Your task to perform on an android device: Go to eBay Image 0: 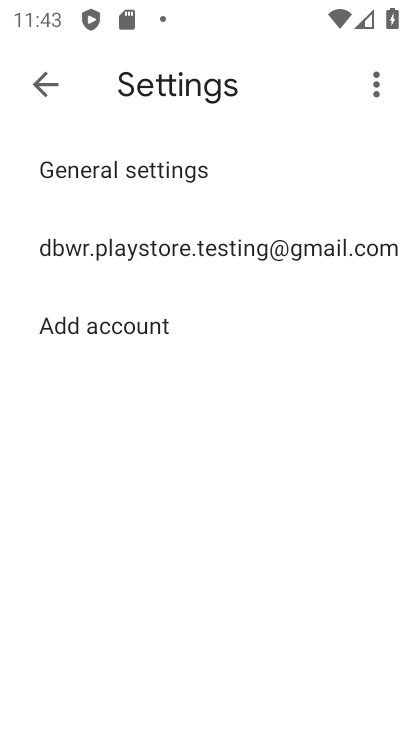
Step 0: press home button
Your task to perform on an android device: Go to eBay Image 1: 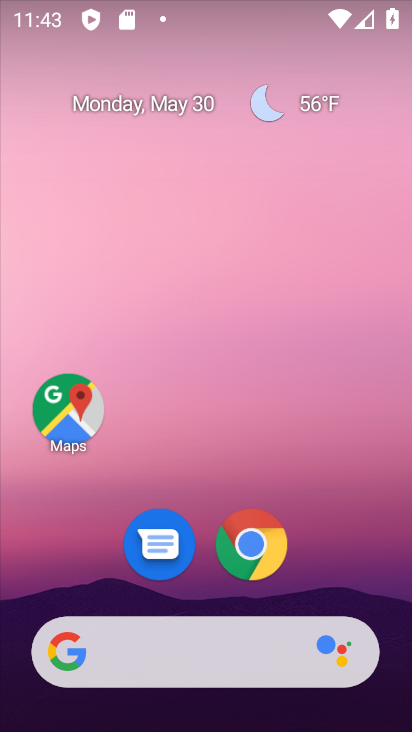
Step 1: click (181, 650)
Your task to perform on an android device: Go to eBay Image 2: 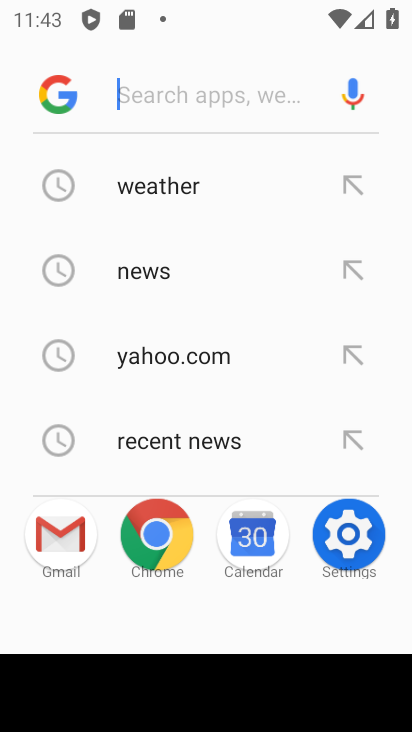
Step 2: type "ebay"
Your task to perform on an android device: Go to eBay Image 3: 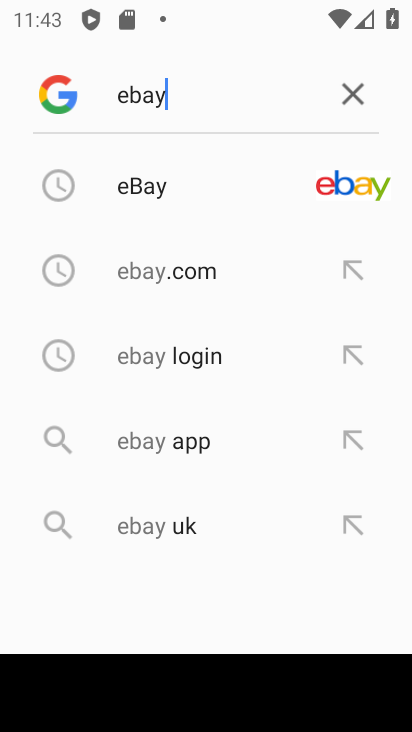
Step 3: click (195, 194)
Your task to perform on an android device: Go to eBay Image 4: 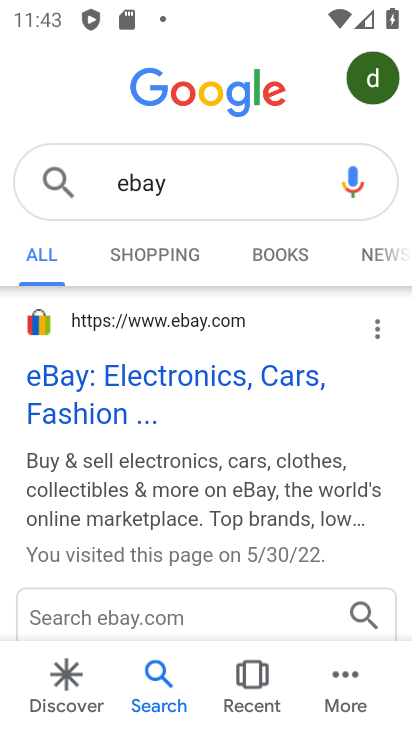
Step 4: click (143, 373)
Your task to perform on an android device: Go to eBay Image 5: 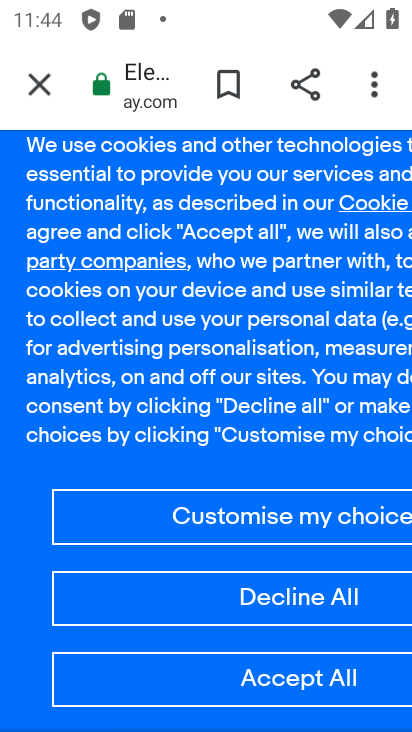
Step 5: task complete